Your task to perform on an android device: see creations saved in the google photos Image 0: 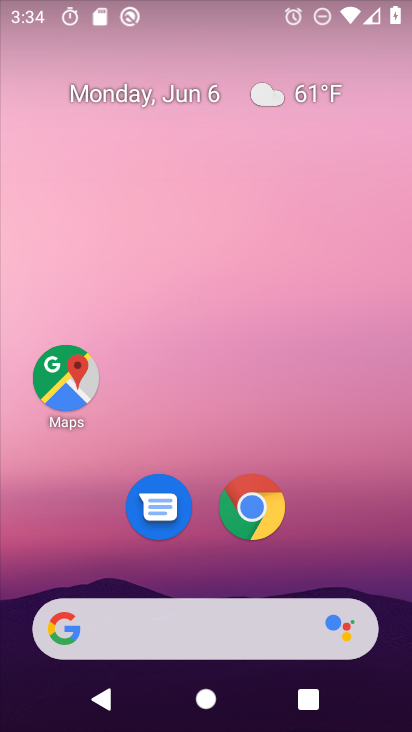
Step 0: drag from (203, 551) to (214, 167)
Your task to perform on an android device: see creations saved in the google photos Image 1: 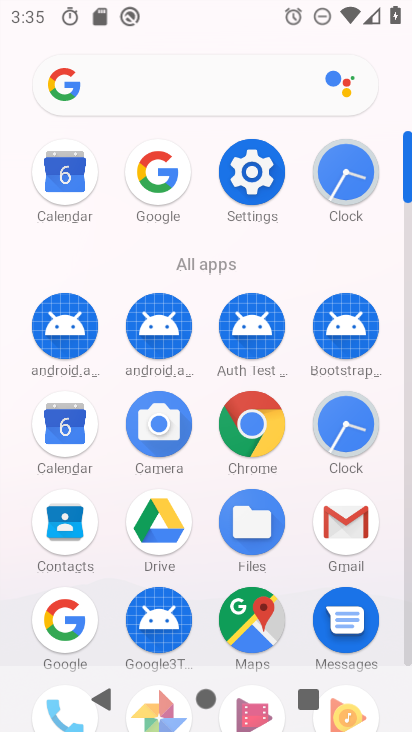
Step 1: drag from (204, 562) to (242, 294)
Your task to perform on an android device: see creations saved in the google photos Image 2: 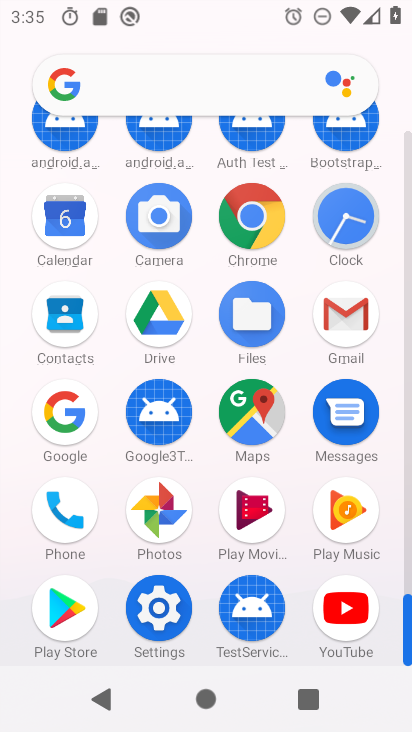
Step 2: click (174, 511)
Your task to perform on an android device: see creations saved in the google photos Image 3: 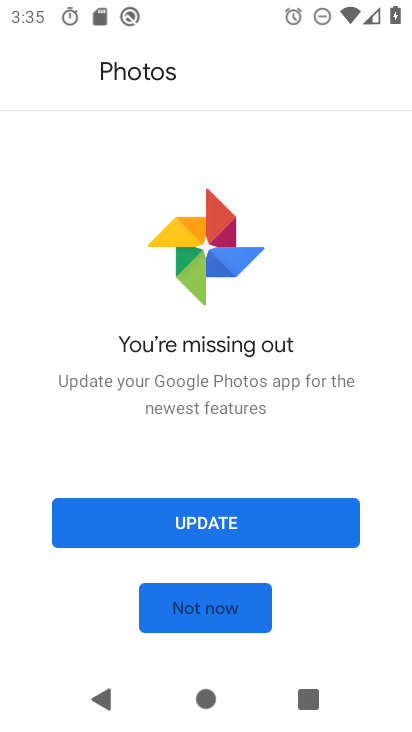
Step 3: click (239, 615)
Your task to perform on an android device: see creations saved in the google photos Image 4: 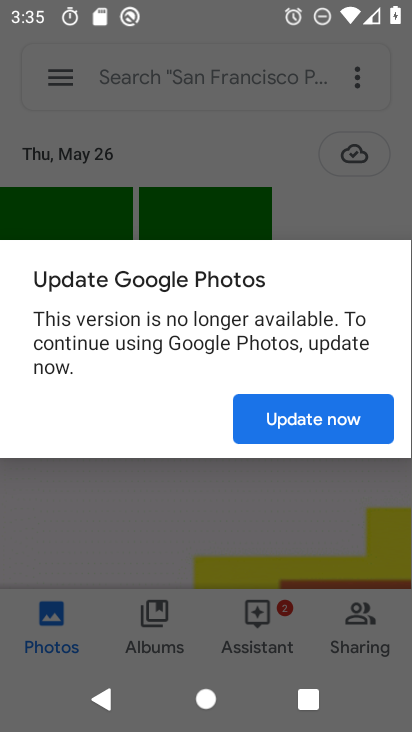
Step 4: click (287, 424)
Your task to perform on an android device: see creations saved in the google photos Image 5: 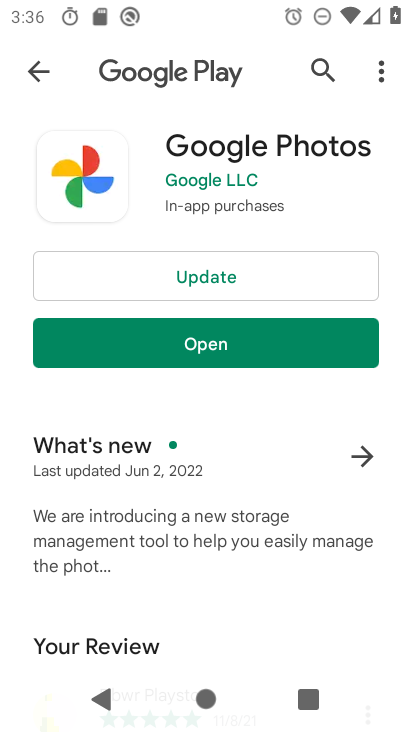
Step 5: click (212, 353)
Your task to perform on an android device: see creations saved in the google photos Image 6: 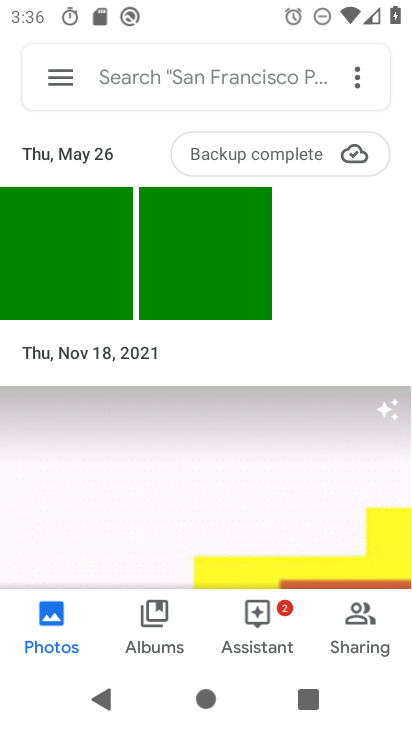
Step 6: click (184, 75)
Your task to perform on an android device: see creations saved in the google photos Image 7: 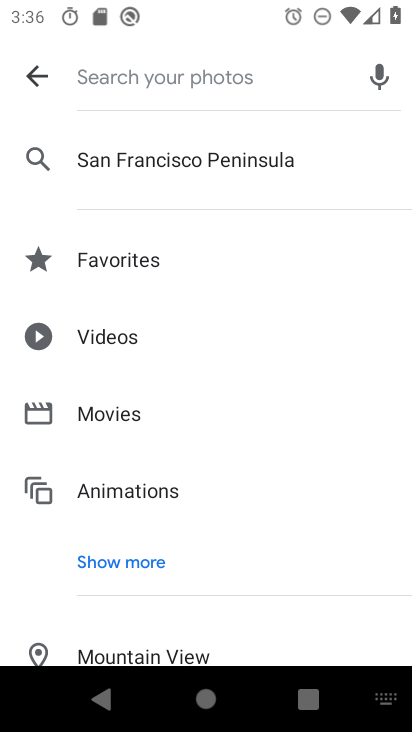
Step 7: click (105, 560)
Your task to perform on an android device: see creations saved in the google photos Image 8: 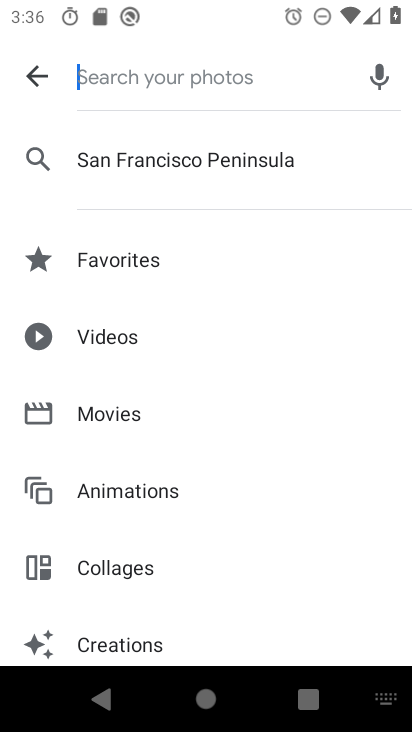
Step 8: drag from (137, 547) to (152, 350)
Your task to perform on an android device: see creations saved in the google photos Image 9: 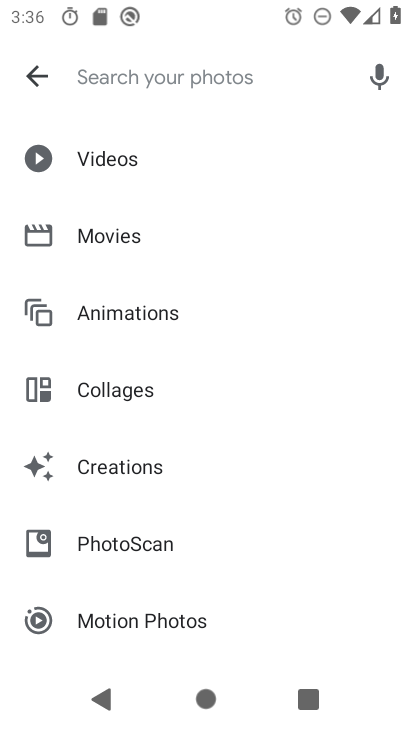
Step 9: click (129, 459)
Your task to perform on an android device: see creations saved in the google photos Image 10: 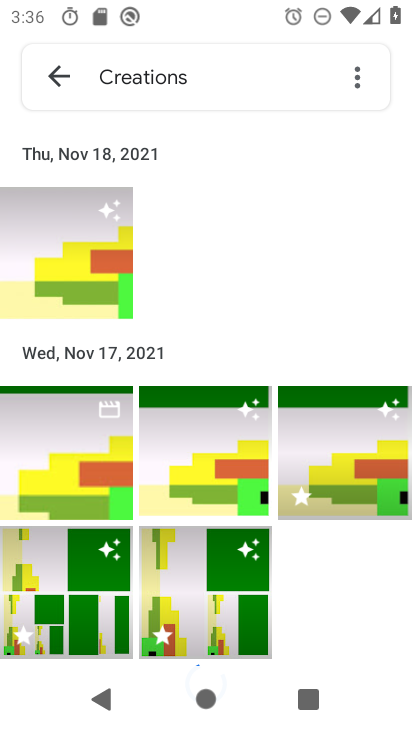
Step 10: task complete